Your task to perform on an android device: all mails in gmail Image 0: 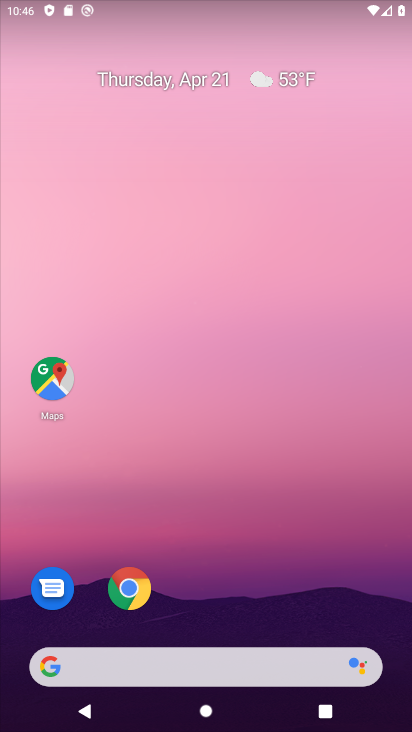
Step 0: drag from (224, 552) to (220, 8)
Your task to perform on an android device: all mails in gmail Image 1: 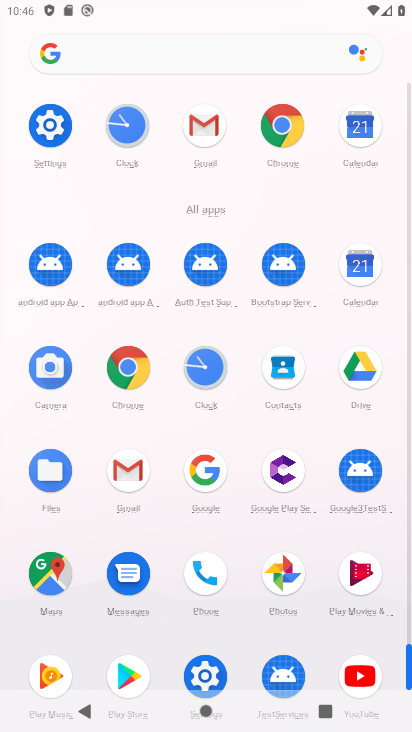
Step 1: click (209, 137)
Your task to perform on an android device: all mails in gmail Image 2: 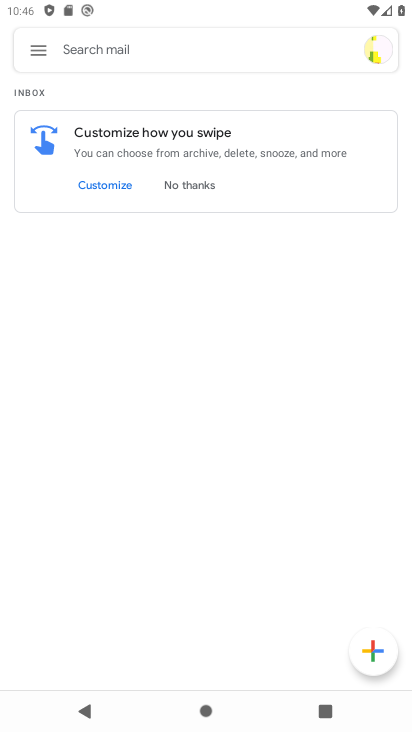
Step 2: click (40, 60)
Your task to perform on an android device: all mails in gmail Image 3: 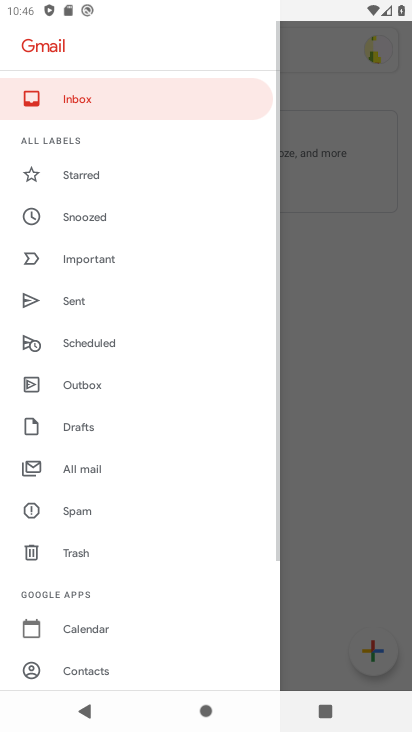
Step 3: click (122, 457)
Your task to perform on an android device: all mails in gmail Image 4: 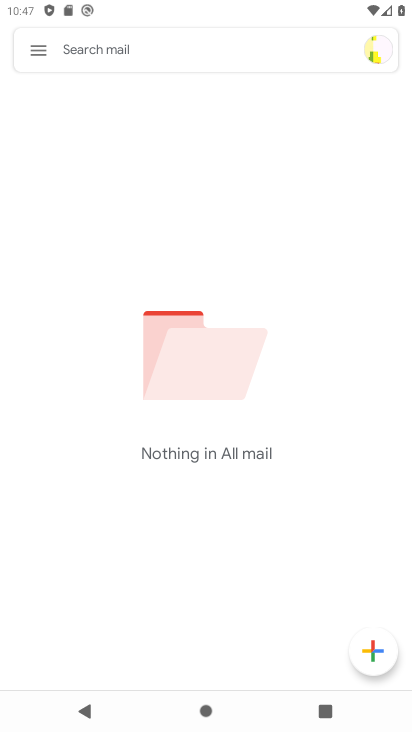
Step 4: task complete